Your task to perform on an android device: Clear all items from cart on amazon.com. Image 0: 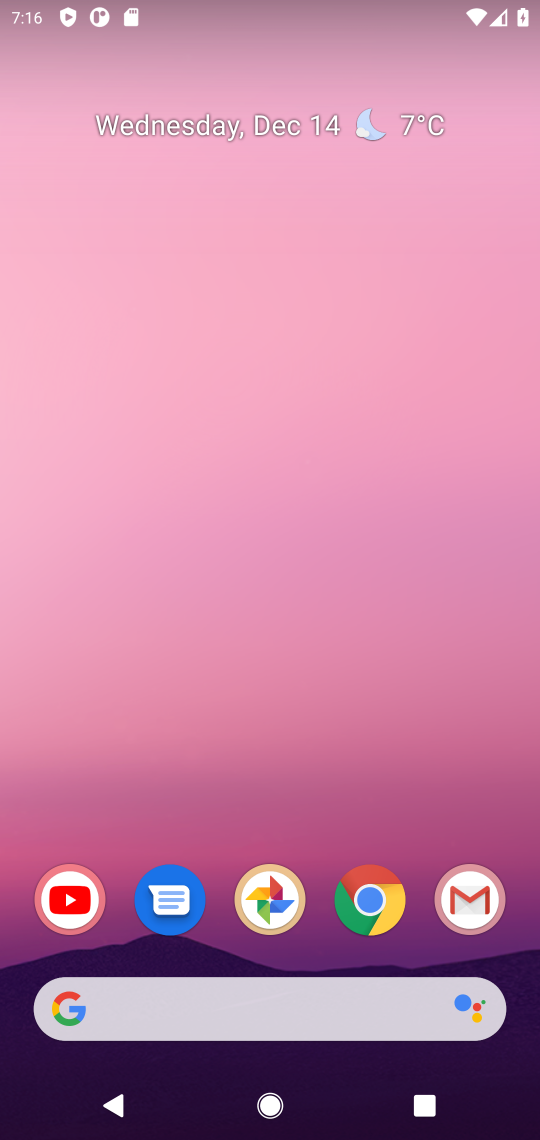
Step 0: click (237, 995)
Your task to perform on an android device: Clear all items from cart on amazon.com. Image 1: 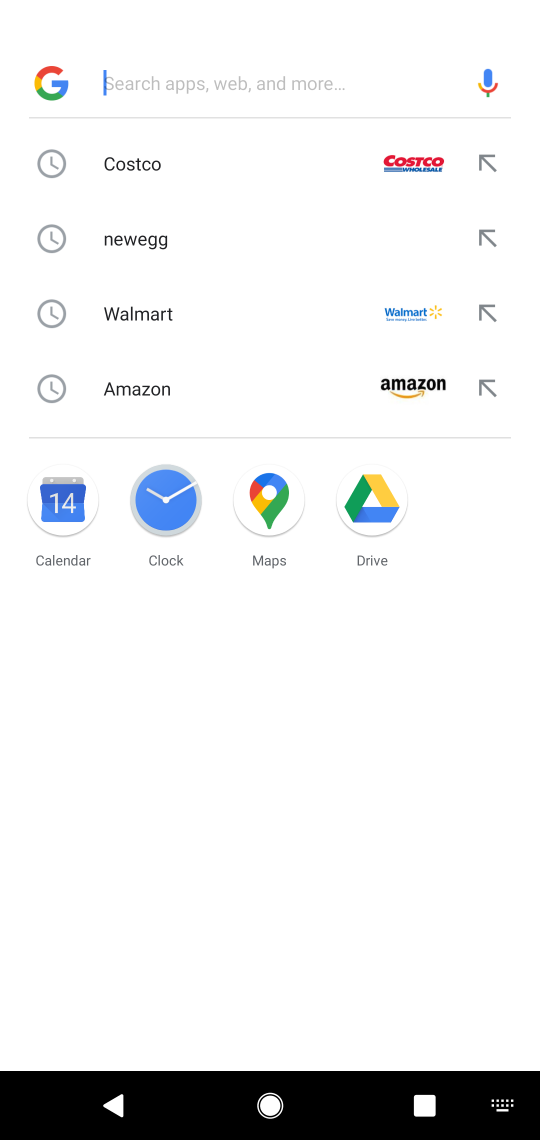
Step 1: click (207, 378)
Your task to perform on an android device: Clear all items from cart on amazon.com. Image 2: 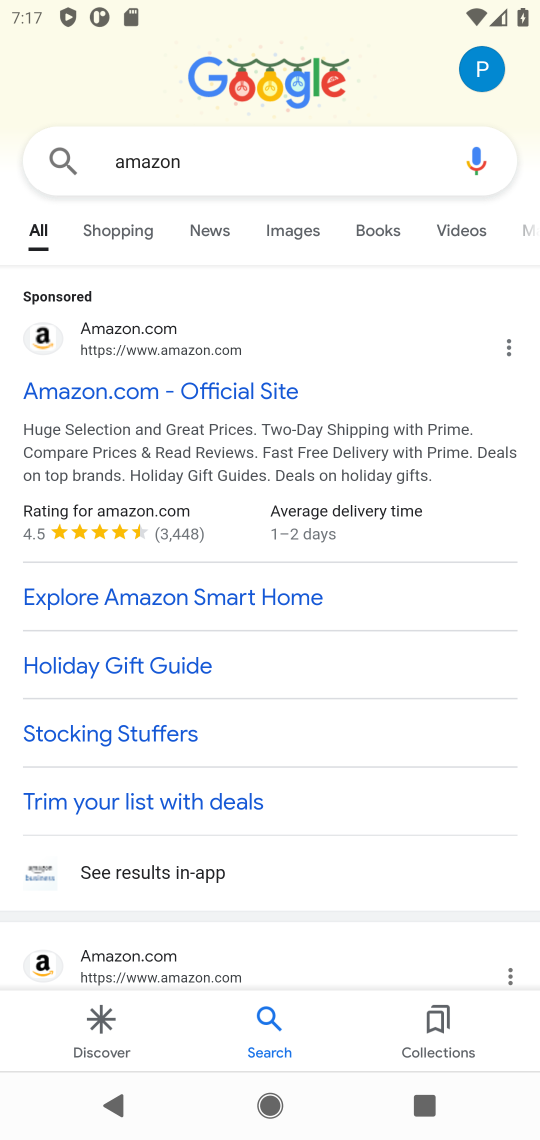
Step 2: click (108, 976)
Your task to perform on an android device: Clear all items from cart on amazon.com. Image 3: 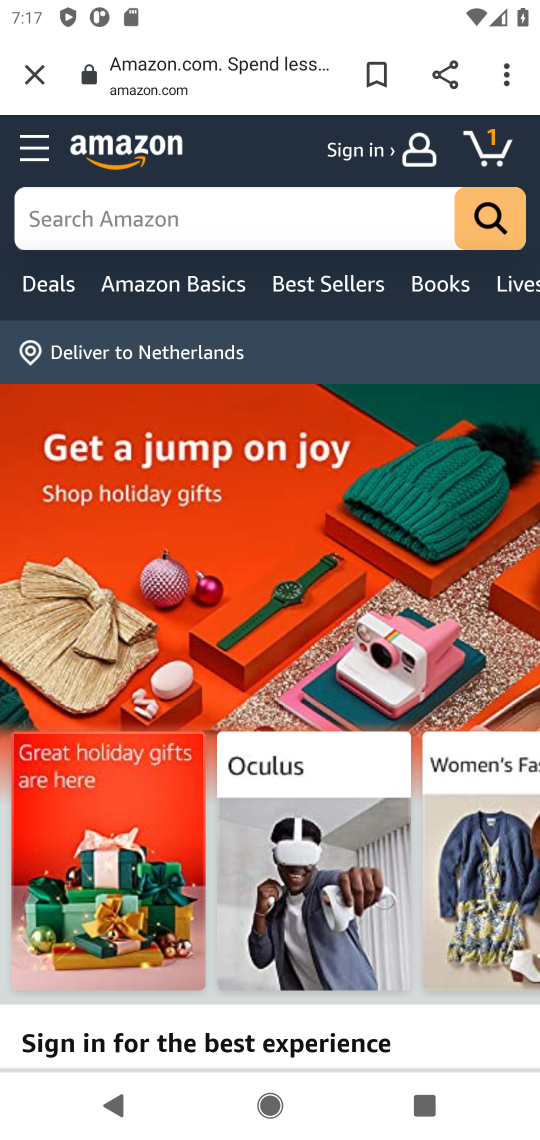
Step 3: click (501, 153)
Your task to perform on an android device: Clear all items from cart on amazon.com. Image 4: 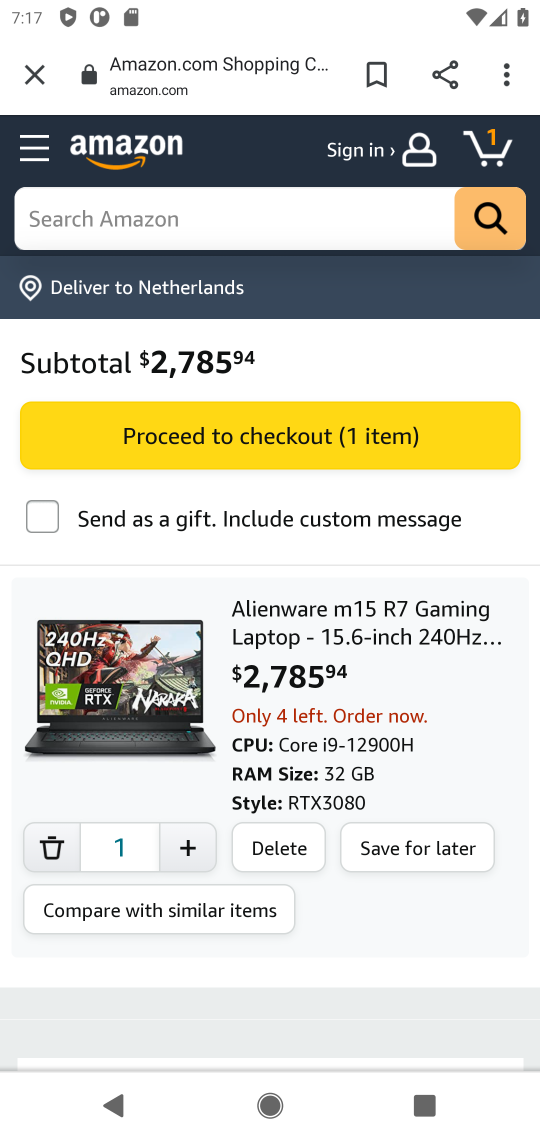
Step 4: click (275, 848)
Your task to perform on an android device: Clear all items from cart on amazon.com. Image 5: 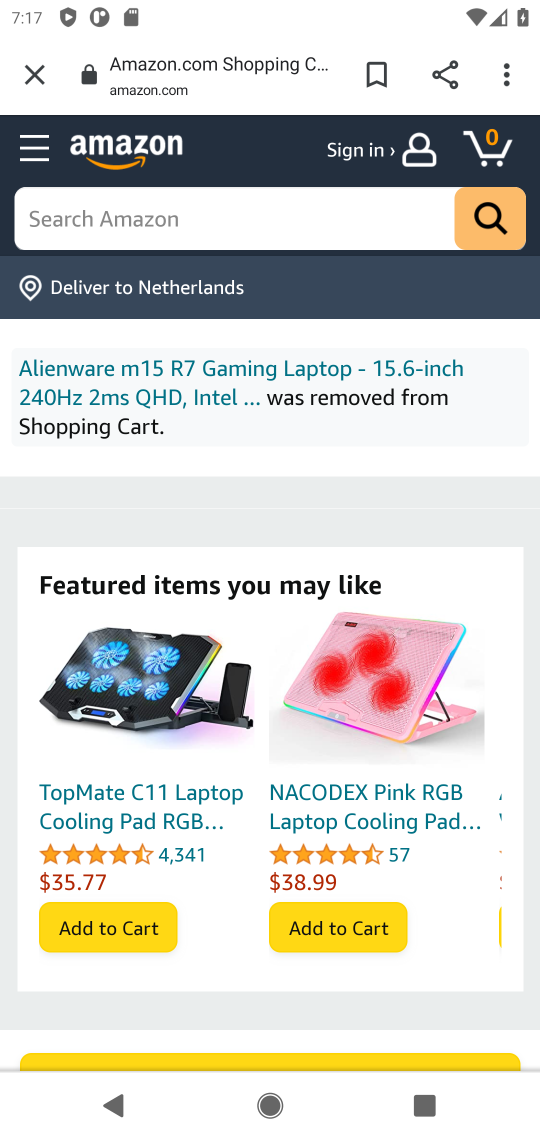
Step 5: task complete